Your task to perform on an android device: Show me popular games on the Play Store Image 0: 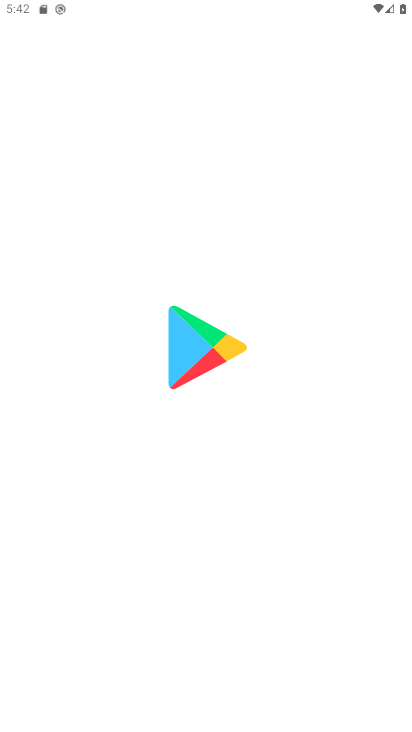
Step 0: drag from (292, 459) to (293, 87)
Your task to perform on an android device: Show me popular games on the Play Store Image 1: 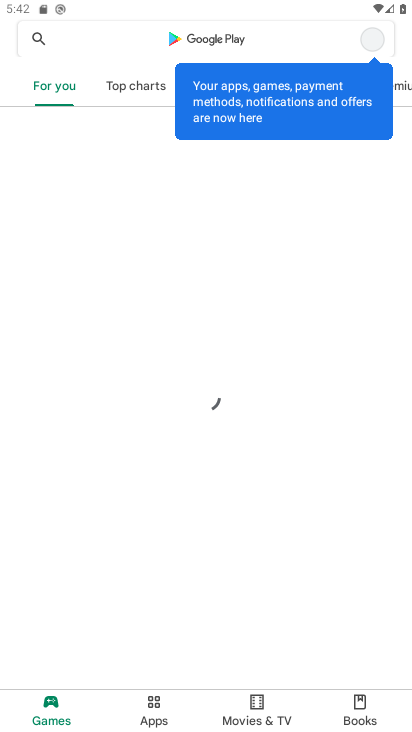
Step 1: press home button
Your task to perform on an android device: Show me popular games on the Play Store Image 2: 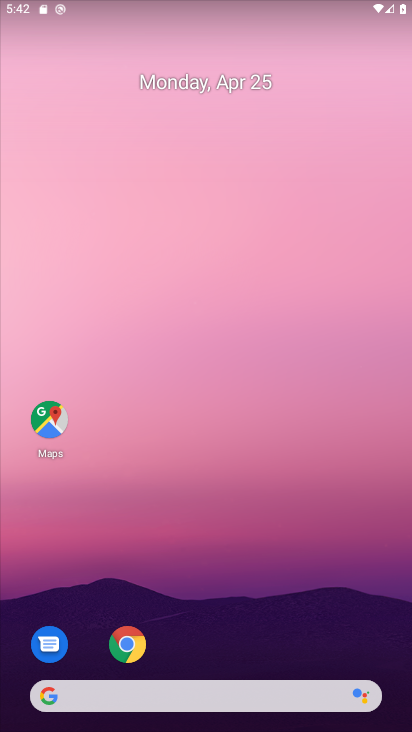
Step 2: drag from (285, 470) to (269, 64)
Your task to perform on an android device: Show me popular games on the Play Store Image 3: 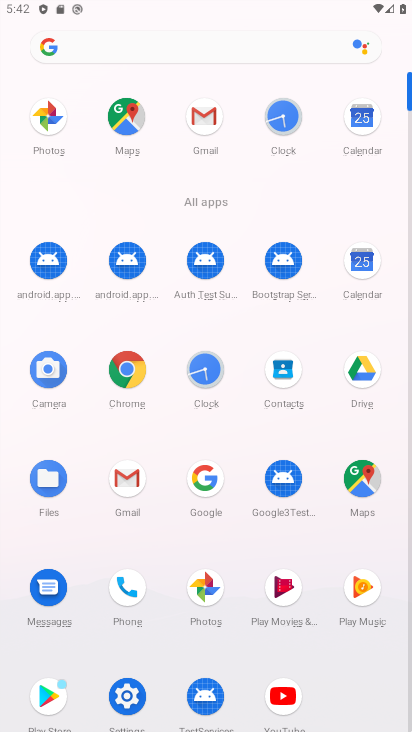
Step 3: click (53, 694)
Your task to perform on an android device: Show me popular games on the Play Store Image 4: 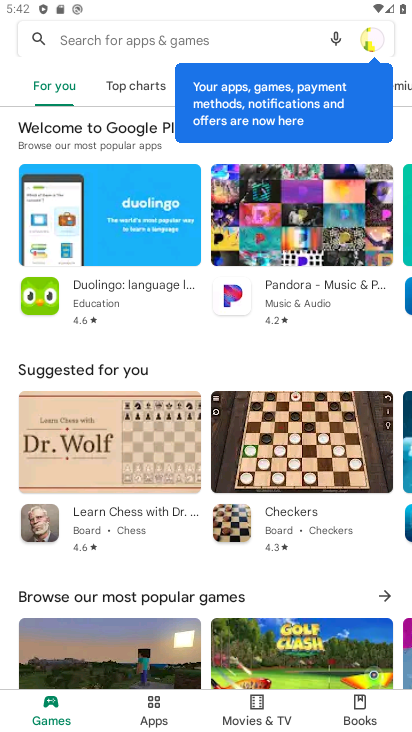
Step 4: click (133, 39)
Your task to perform on an android device: Show me popular games on the Play Store Image 5: 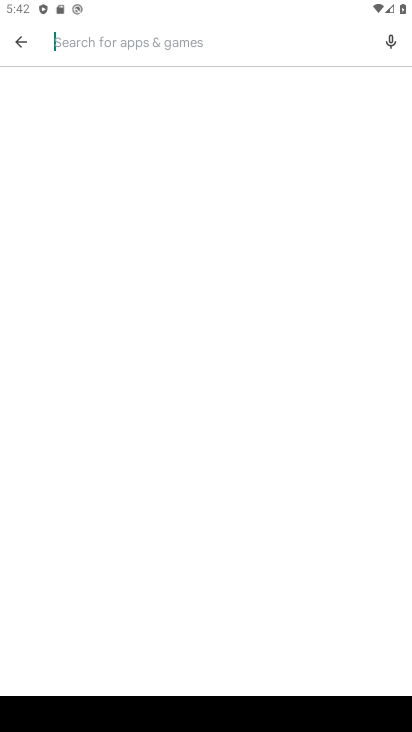
Step 5: type "popular games"
Your task to perform on an android device: Show me popular games on the Play Store Image 6: 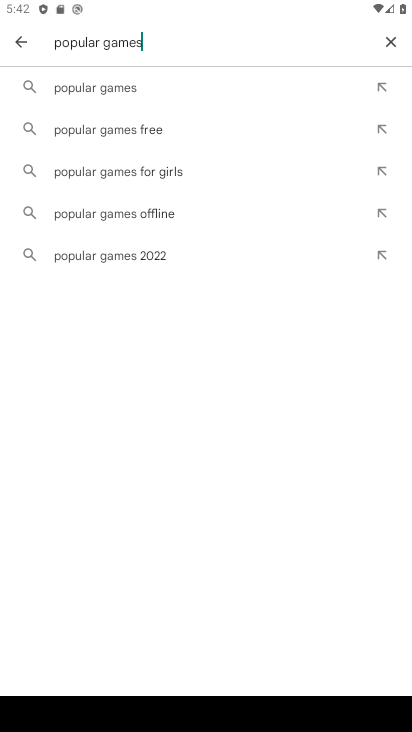
Step 6: click (81, 82)
Your task to perform on an android device: Show me popular games on the Play Store Image 7: 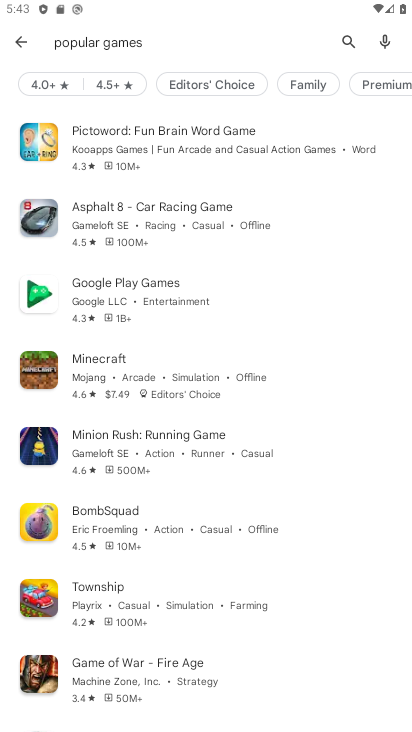
Step 7: task complete